Your task to perform on an android device: add a contact in the contacts app Image 0: 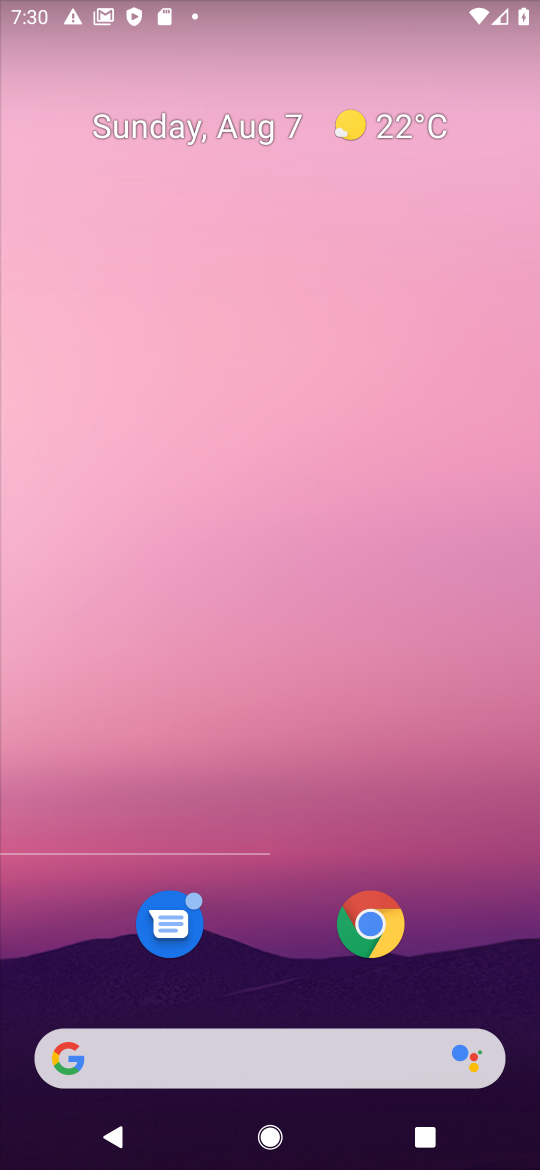
Step 0: press home button
Your task to perform on an android device: add a contact in the contacts app Image 1: 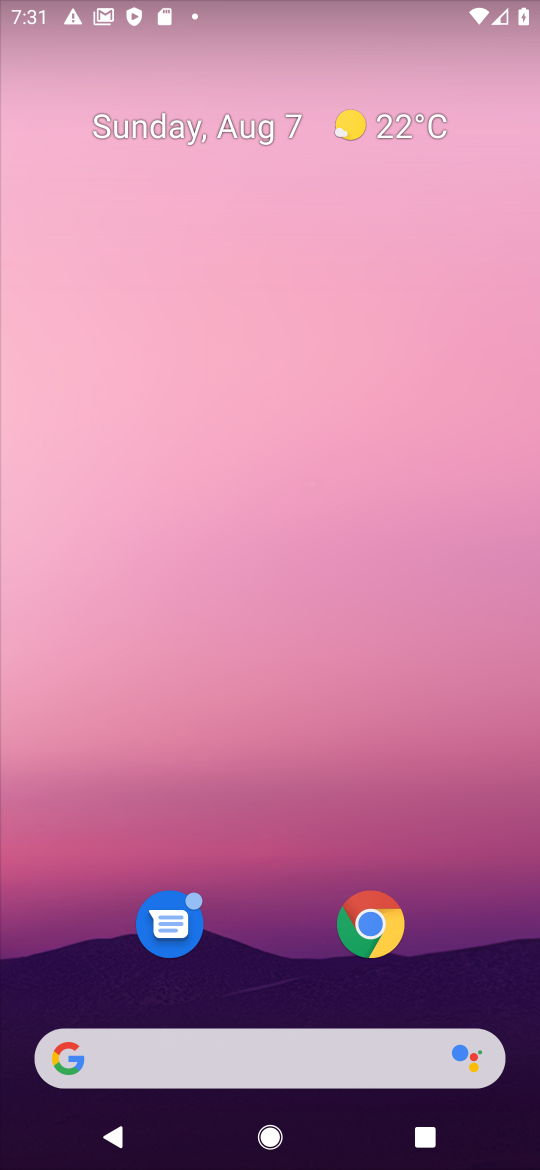
Step 1: drag from (324, 809) to (364, 3)
Your task to perform on an android device: add a contact in the contacts app Image 2: 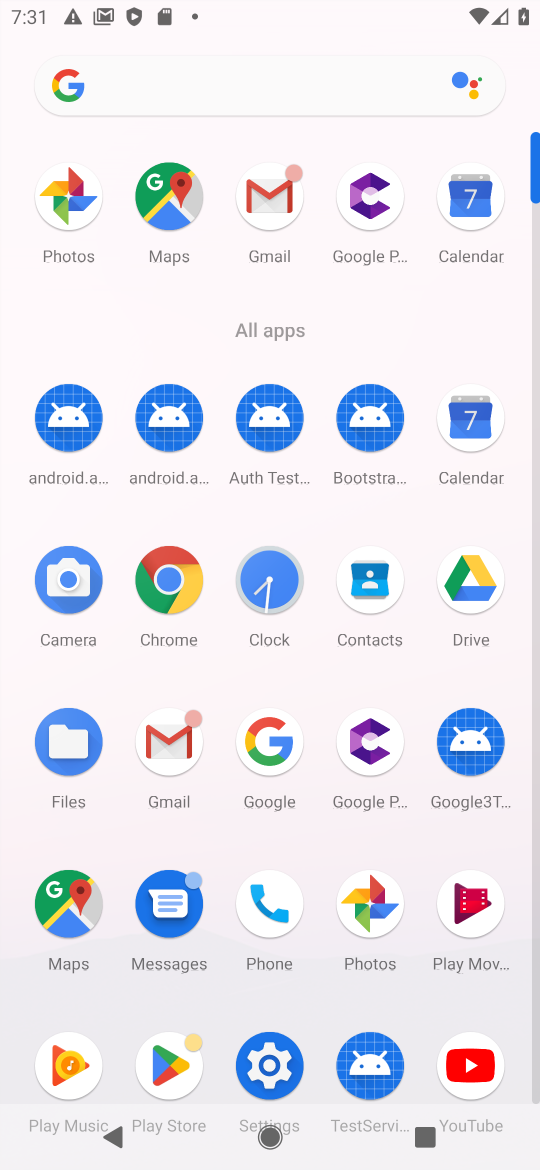
Step 2: click (368, 581)
Your task to perform on an android device: add a contact in the contacts app Image 3: 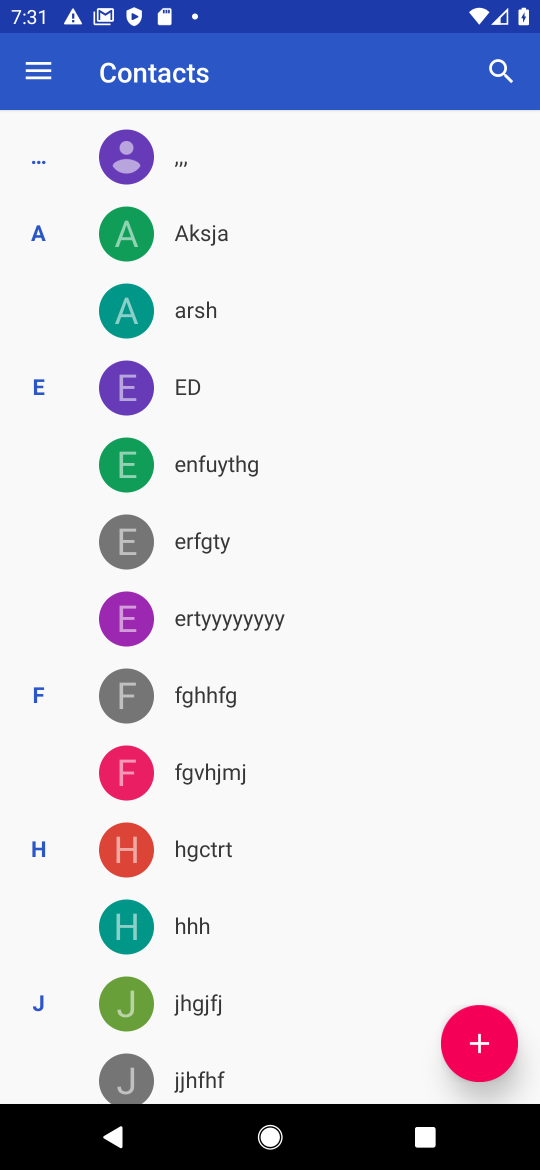
Step 3: click (477, 1044)
Your task to perform on an android device: add a contact in the contacts app Image 4: 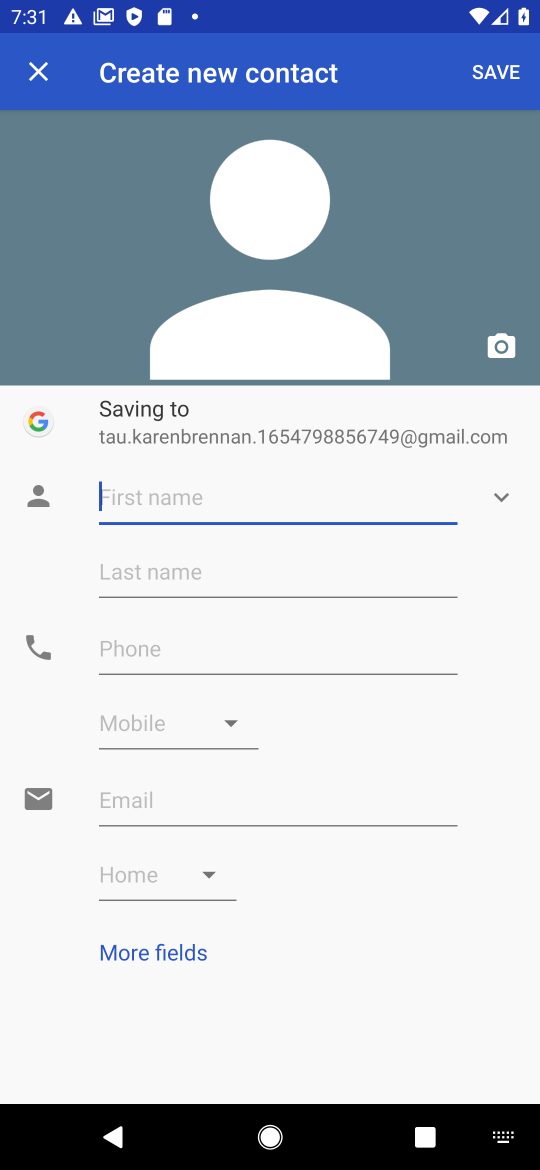
Step 4: click (328, 493)
Your task to perform on an android device: add a contact in the contacts app Image 5: 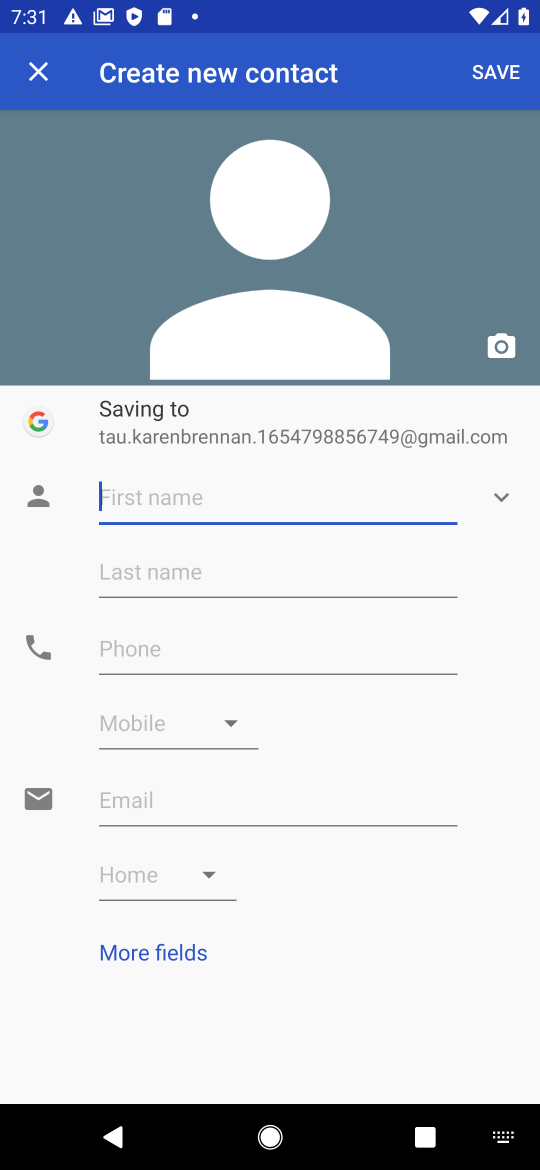
Step 5: type "Abba"
Your task to perform on an android device: add a contact in the contacts app Image 6: 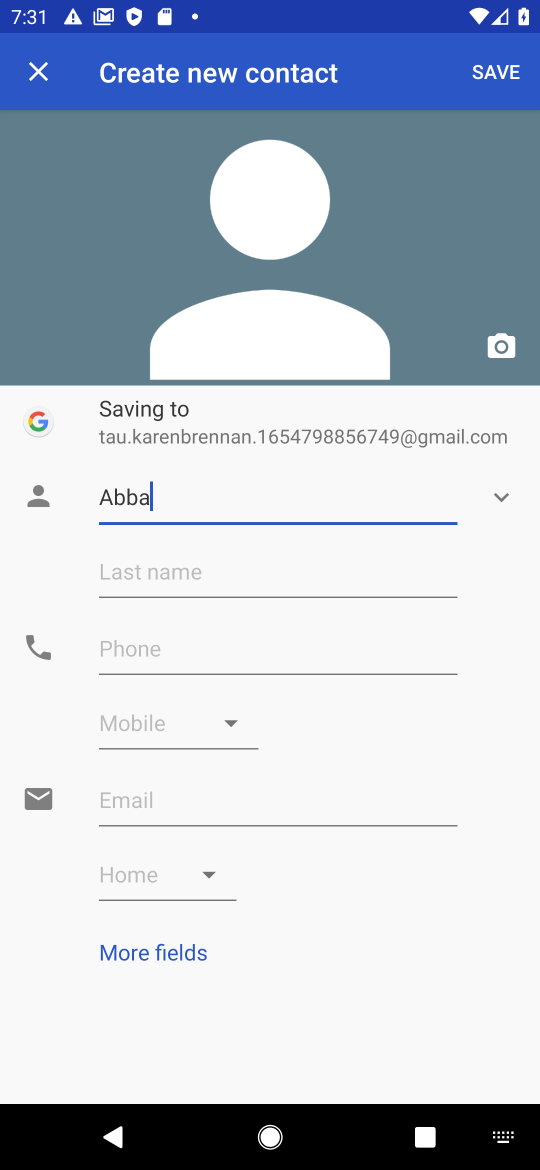
Step 6: click (277, 650)
Your task to perform on an android device: add a contact in the contacts app Image 7: 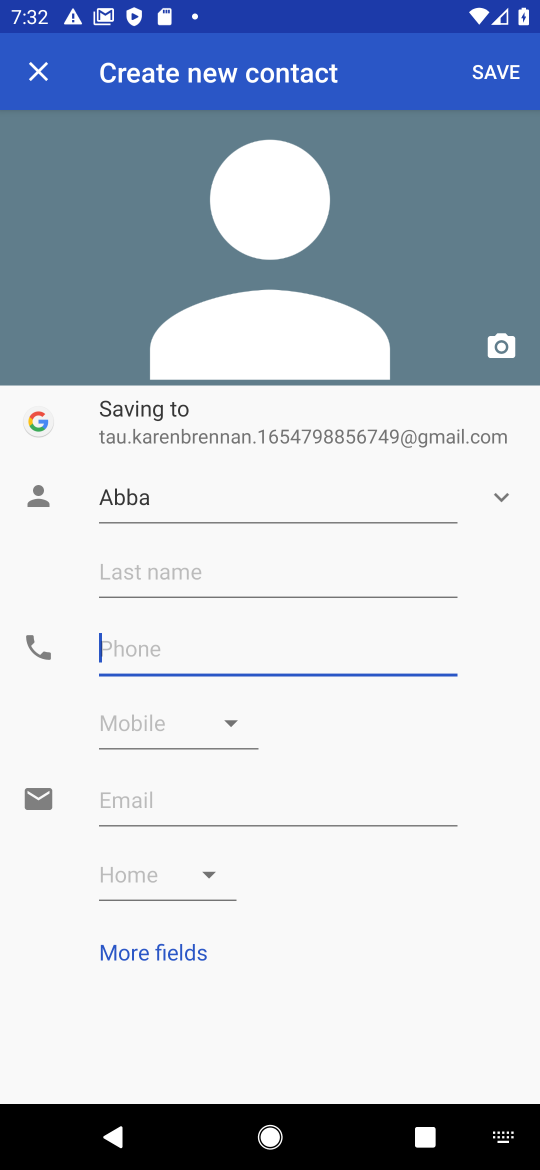
Step 7: type "+91998877665544"
Your task to perform on an android device: add a contact in the contacts app Image 8: 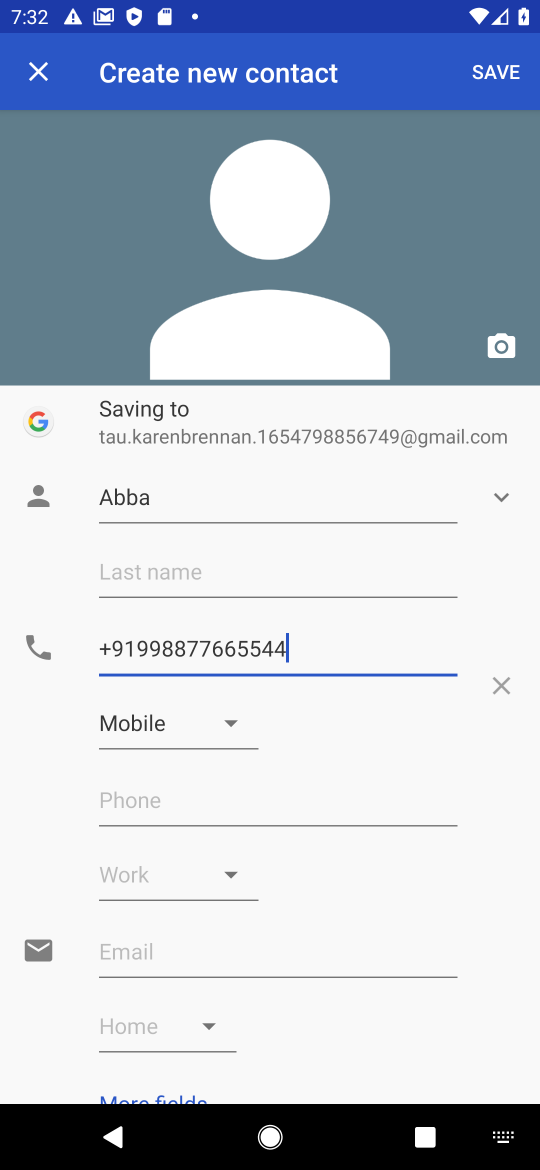
Step 8: click (495, 79)
Your task to perform on an android device: add a contact in the contacts app Image 9: 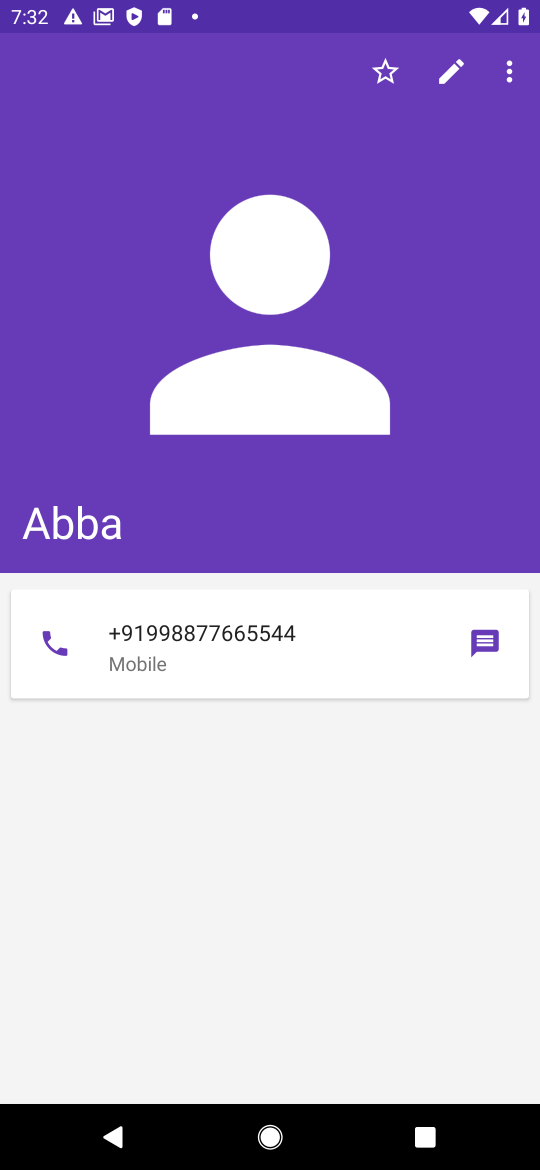
Step 9: task complete